Your task to perform on an android device: Open the Play Movies app and select the watchlist tab. Image 0: 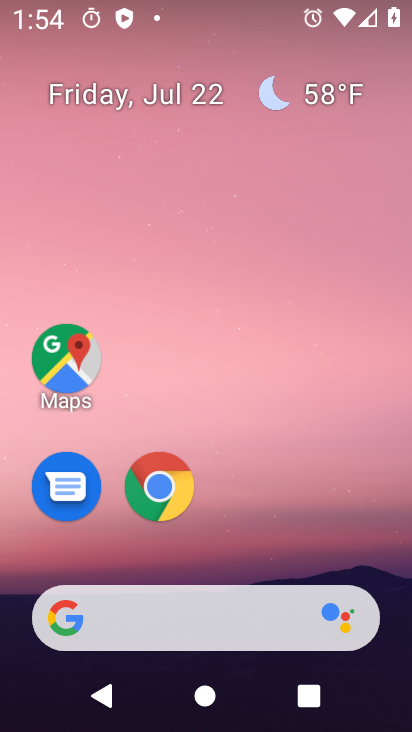
Step 0: drag from (375, 549) to (356, 193)
Your task to perform on an android device: Open the Play Movies app and select the watchlist tab. Image 1: 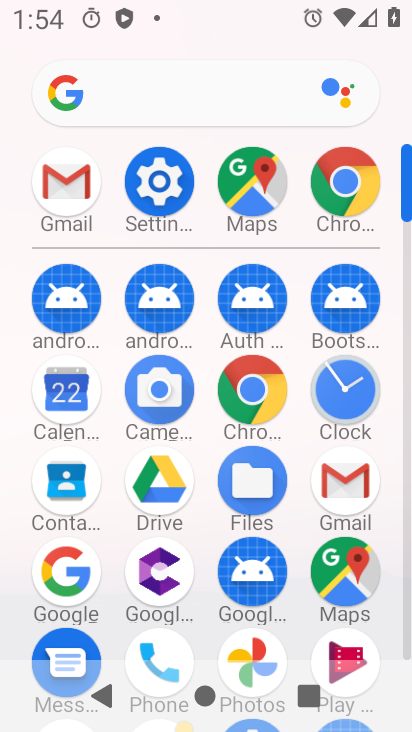
Step 1: drag from (387, 549) to (389, 292)
Your task to perform on an android device: Open the Play Movies app and select the watchlist tab. Image 2: 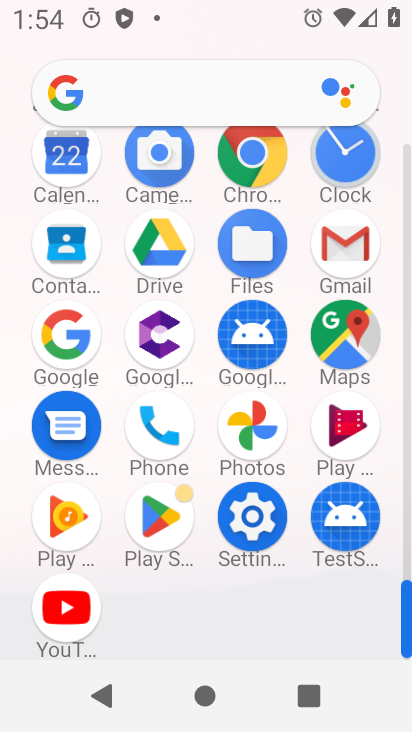
Step 2: click (353, 424)
Your task to perform on an android device: Open the Play Movies app and select the watchlist tab. Image 3: 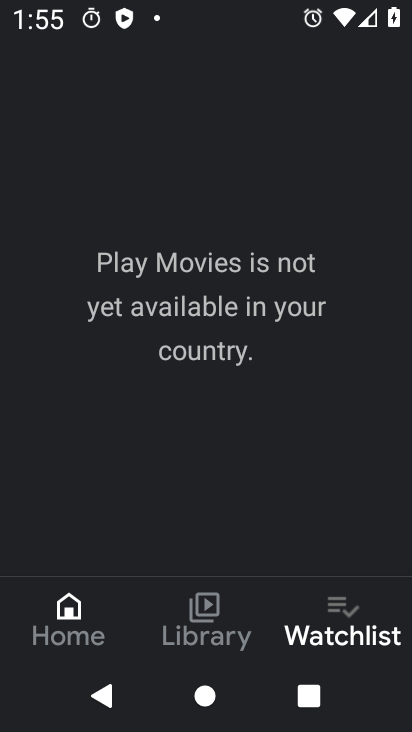
Step 3: task complete